Your task to perform on an android device: change the clock style Image 0: 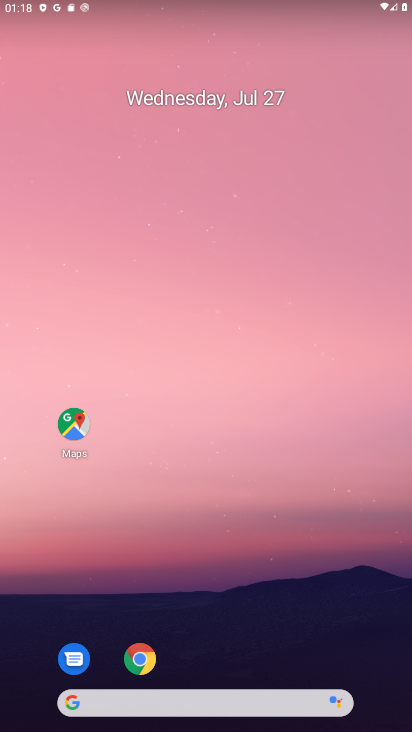
Step 0: drag from (374, 614) to (342, 9)
Your task to perform on an android device: change the clock style Image 1: 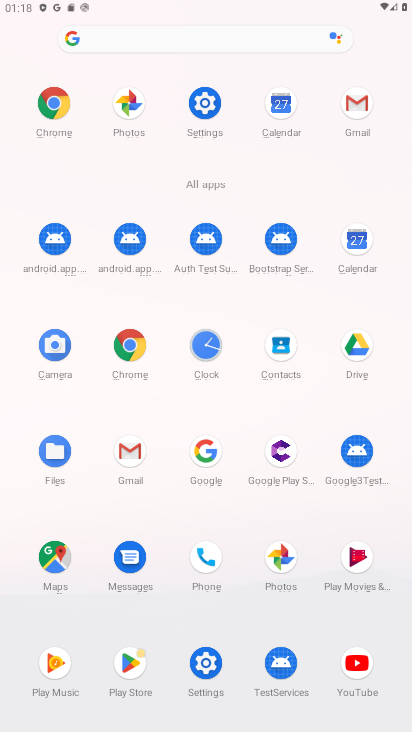
Step 1: click (209, 355)
Your task to perform on an android device: change the clock style Image 2: 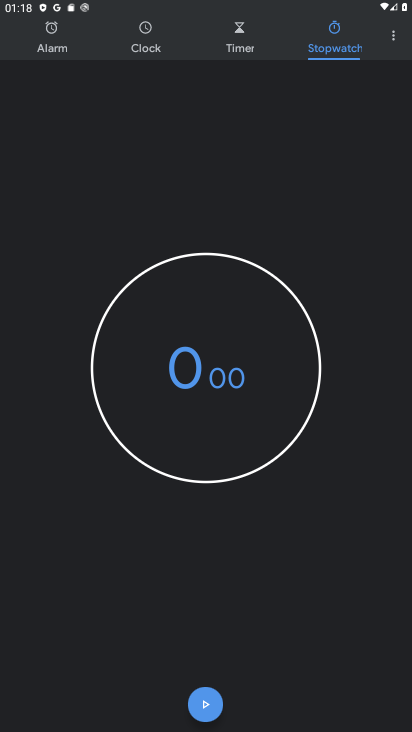
Step 2: click (394, 30)
Your task to perform on an android device: change the clock style Image 3: 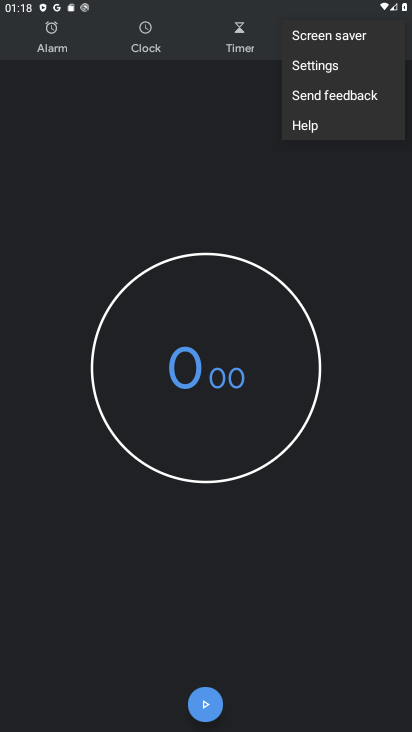
Step 3: click (334, 72)
Your task to perform on an android device: change the clock style Image 4: 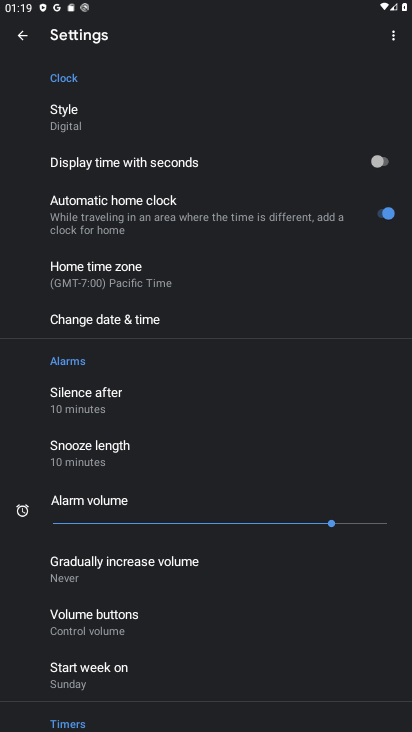
Step 4: click (117, 109)
Your task to perform on an android device: change the clock style Image 5: 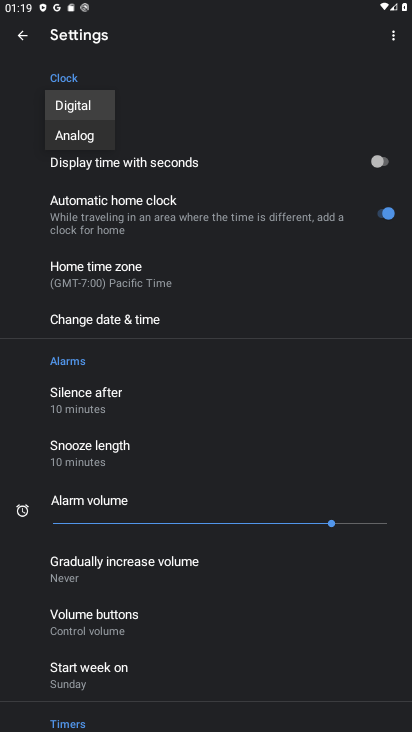
Step 5: click (99, 142)
Your task to perform on an android device: change the clock style Image 6: 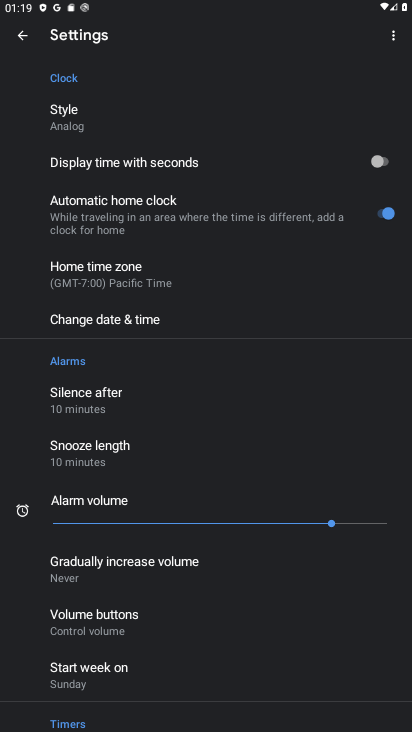
Step 6: task complete